Your task to perform on an android device: Open display settings Image 0: 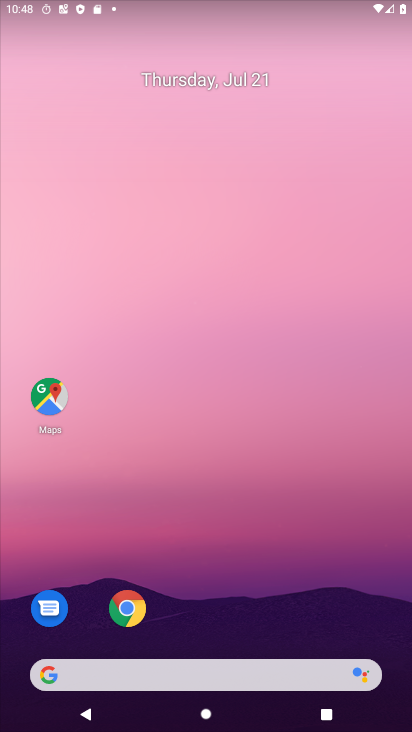
Step 0: drag from (202, 600) to (192, 62)
Your task to perform on an android device: Open display settings Image 1: 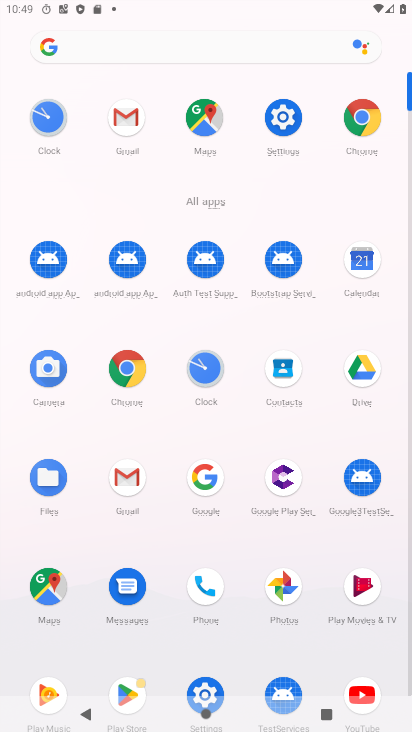
Step 1: click (276, 145)
Your task to perform on an android device: Open display settings Image 2: 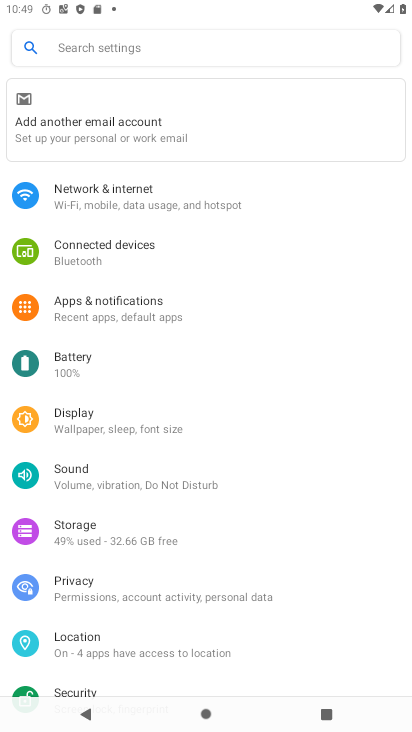
Step 2: click (72, 431)
Your task to perform on an android device: Open display settings Image 3: 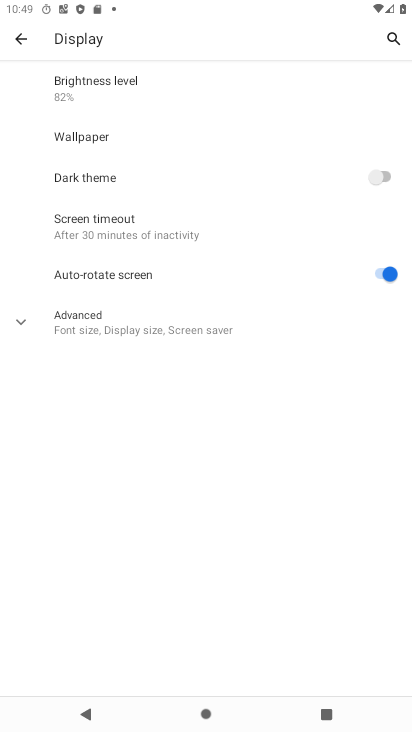
Step 3: task complete